Your task to perform on an android device: Search for "rayovac triple a" on ebay.com, select the first entry, and add it to the cart. Image 0: 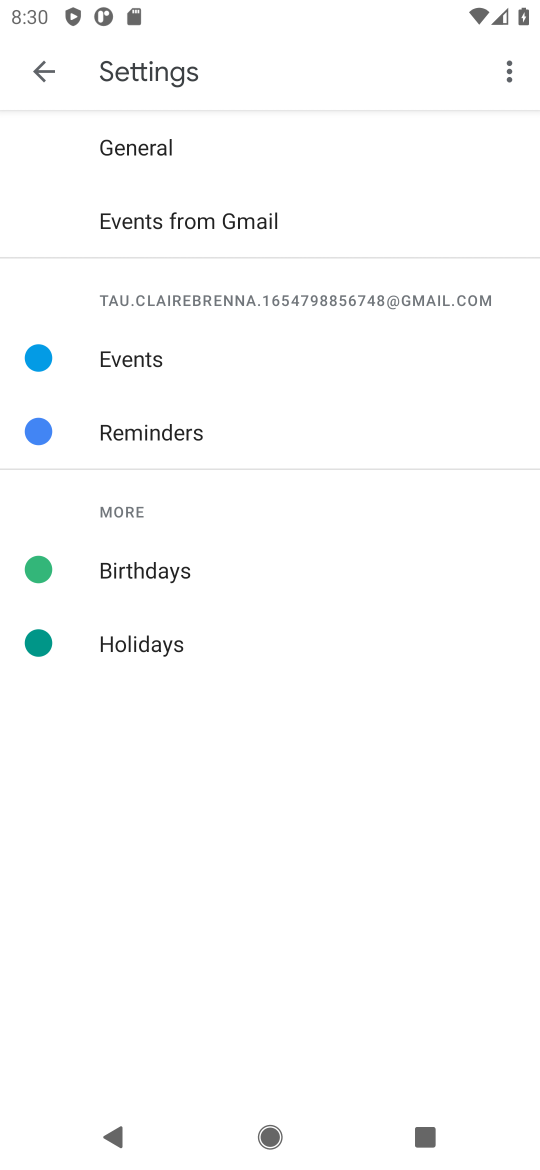
Step 0: press home button
Your task to perform on an android device: Search for "rayovac triple a" on ebay.com, select the first entry, and add it to the cart. Image 1: 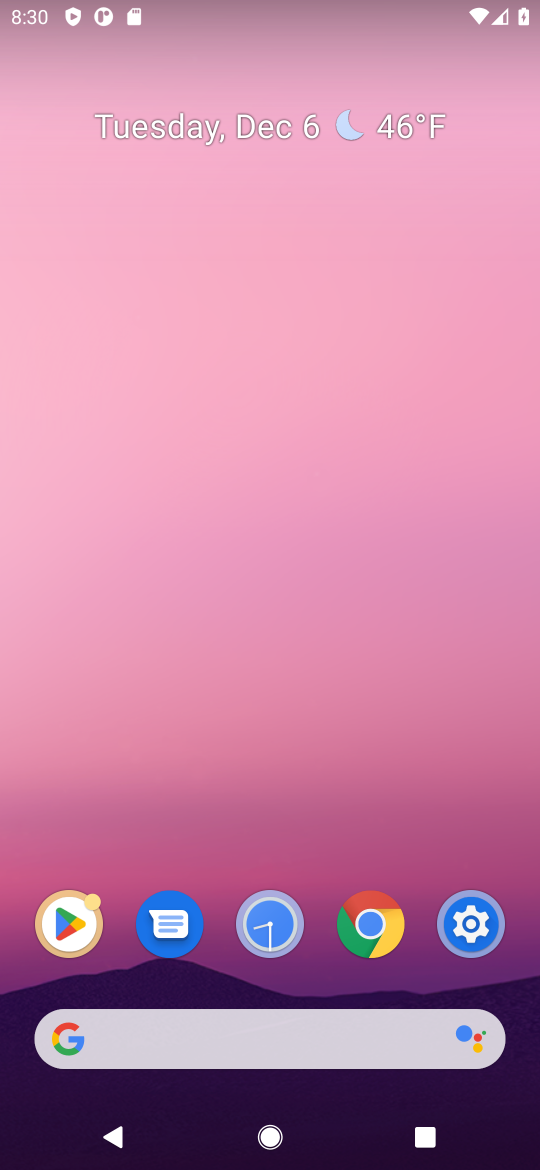
Step 1: click (300, 1030)
Your task to perform on an android device: Search for "rayovac triple a" on ebay.com, select the first entry, and add it to the cart. Image 2: 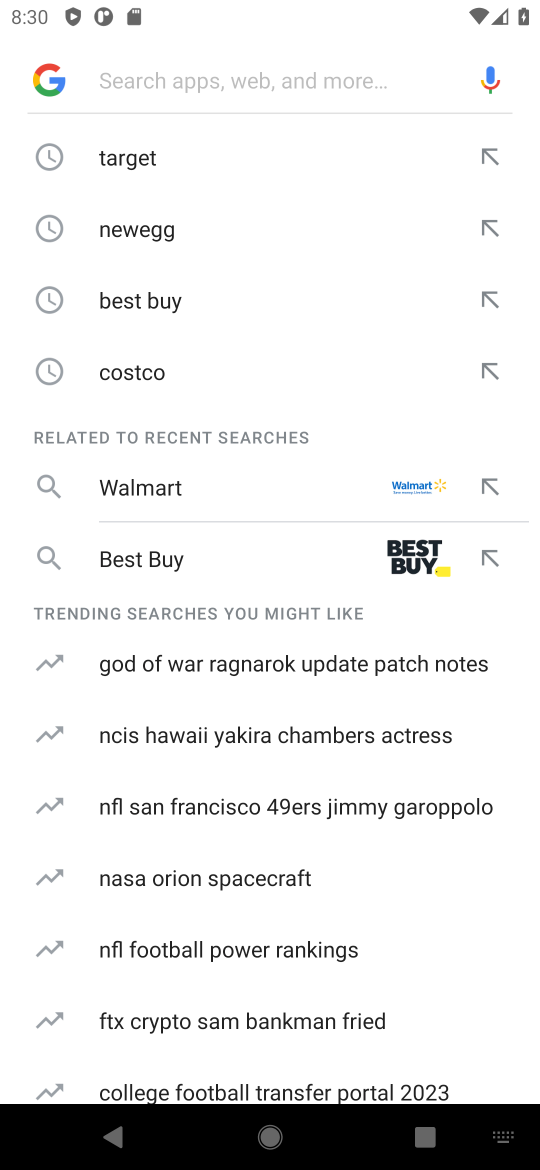
Step 2: type "ebay.com"
Your task to perform on an android device: Search for "rayovac triple a" on ebay.com, select the first entry, and add it to the cart. Image 3: 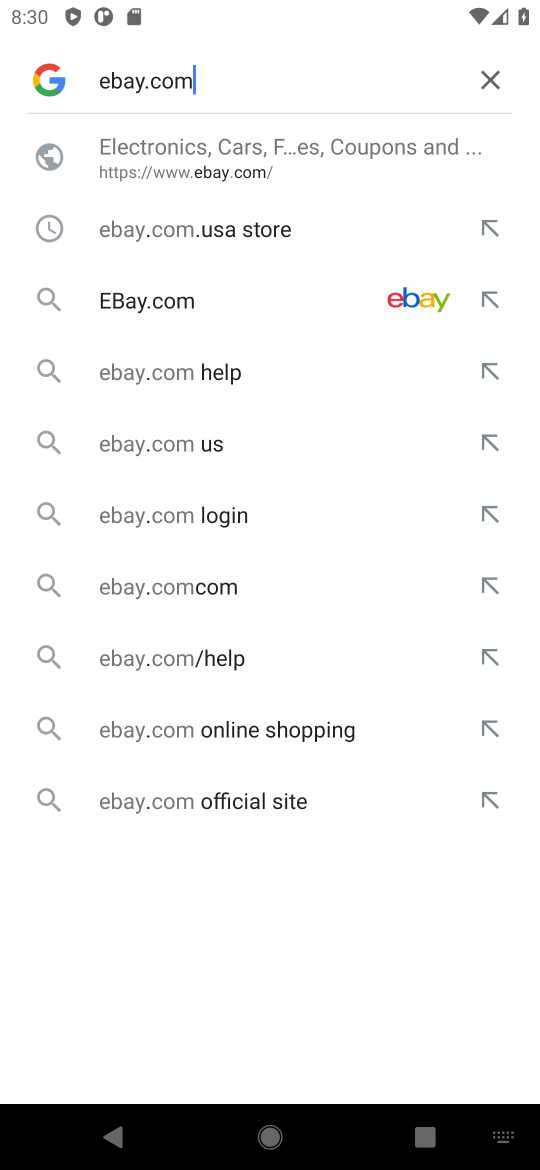
Step 3: click (159, 180)
Your task to perform on an android device: Search for "rayovac triple a" on ebay.com, select the first entry, and add it to the cart. Image 4: 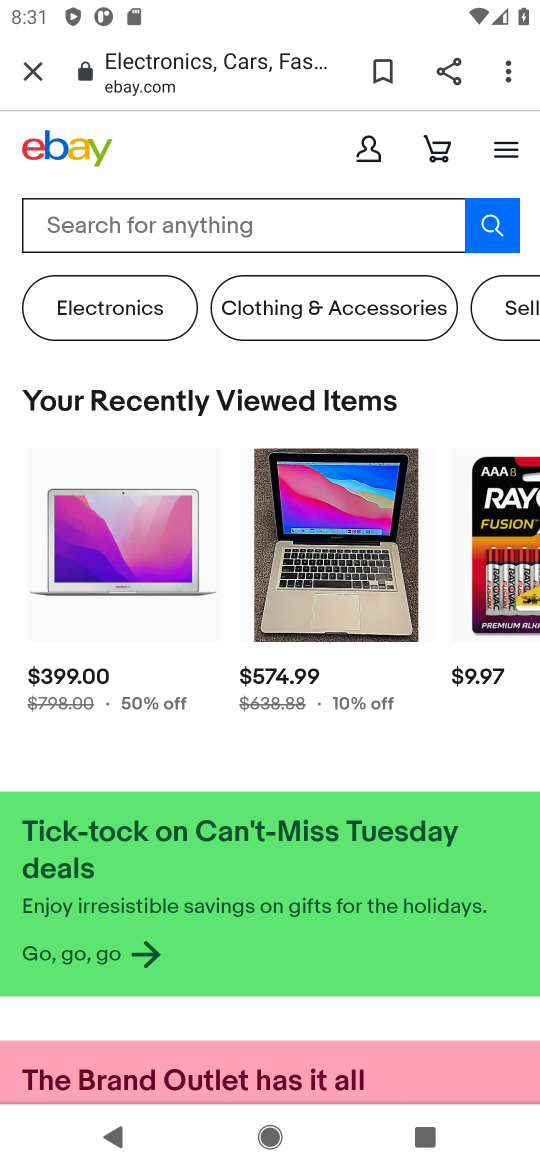
Step 4: click (244, 223)
Your task to perform on an android device: Search for "rayovac triple a" on ebay.com, select the first entry, and add it to the cart. Image 5: 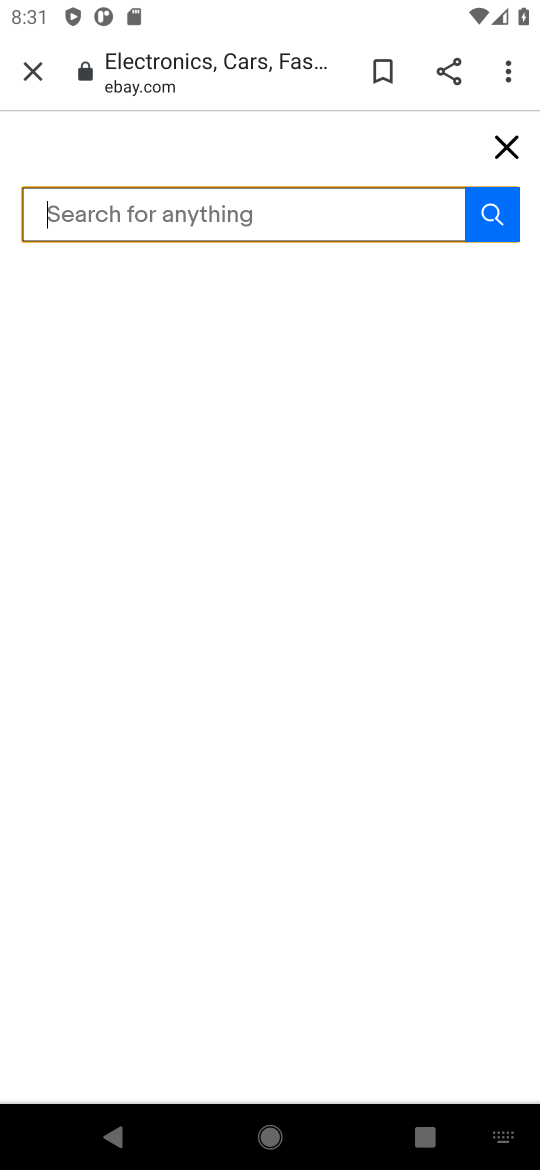
Step 5: type "rayovac triple a"
Your task to perform on an android device: Search for "rayovac triple a" on ebay.com, select the first entry, and add it to the cart. Image 6: 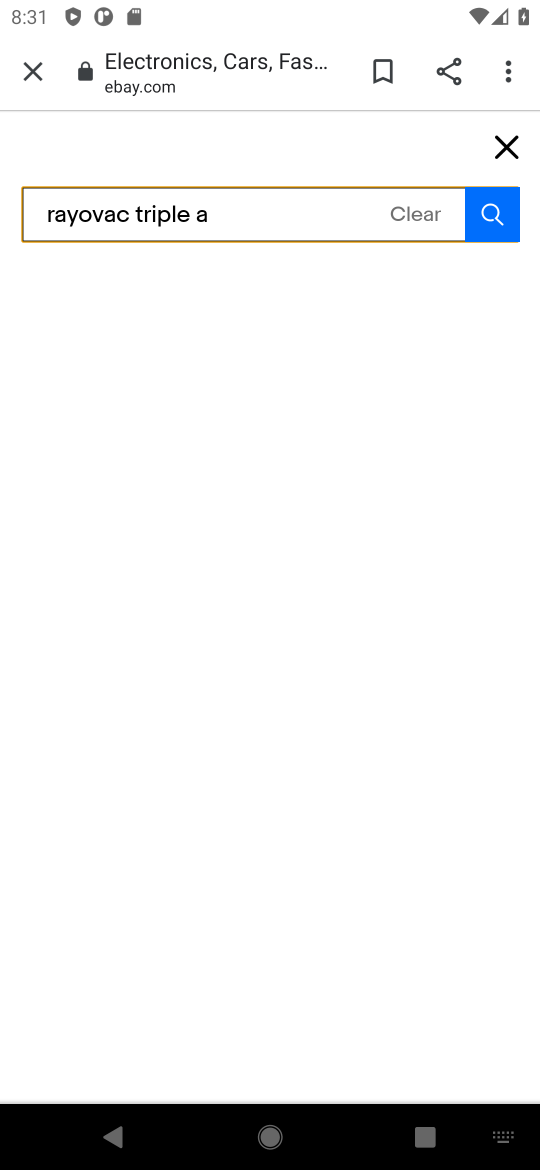
Step 6: click (482, 231)
Your task to perform on an android device: Search for "rayovac triple a" on ebay.com, select the first entry, and add it to the cart. Image 7: 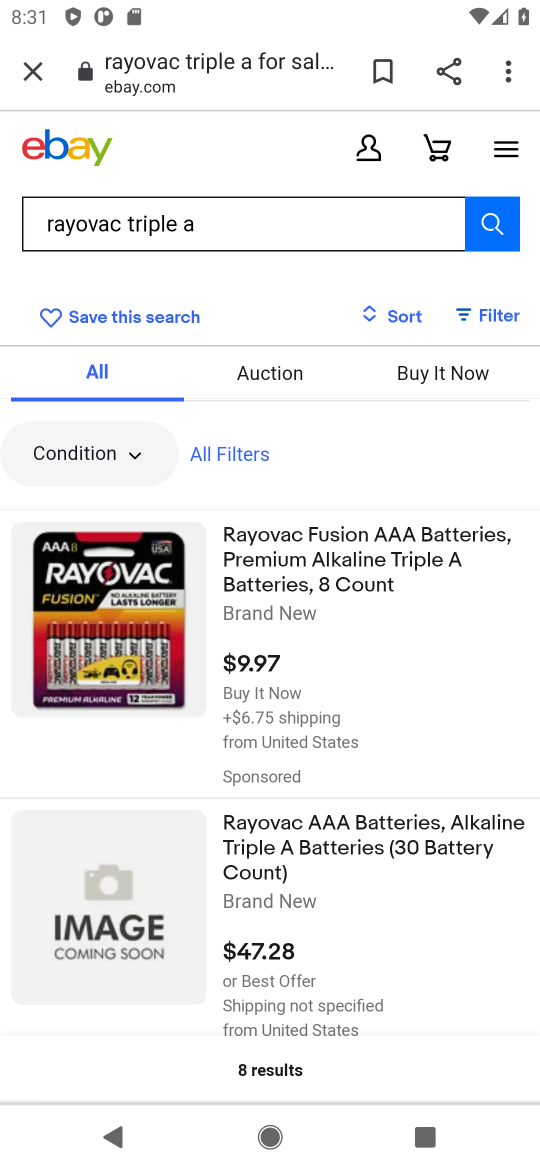
Step 7: click (275, 601)
Your task to perform on an android device: Search for "rayovac triple a" on ebay.com, select the first entry, and add it to the cart. Image 8: 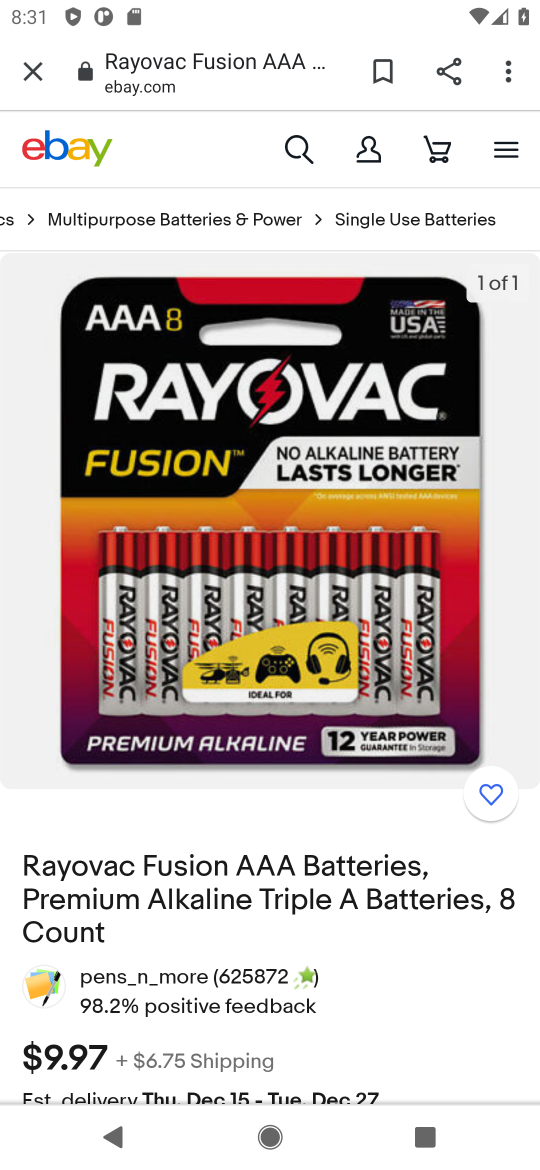
Step 8: drag from (328, 817) to (281, 367)
Your task to perform on an android device: Search for "rayovac triple a" on ebay.com, select the first entry, and add it to the cart. Image 9: 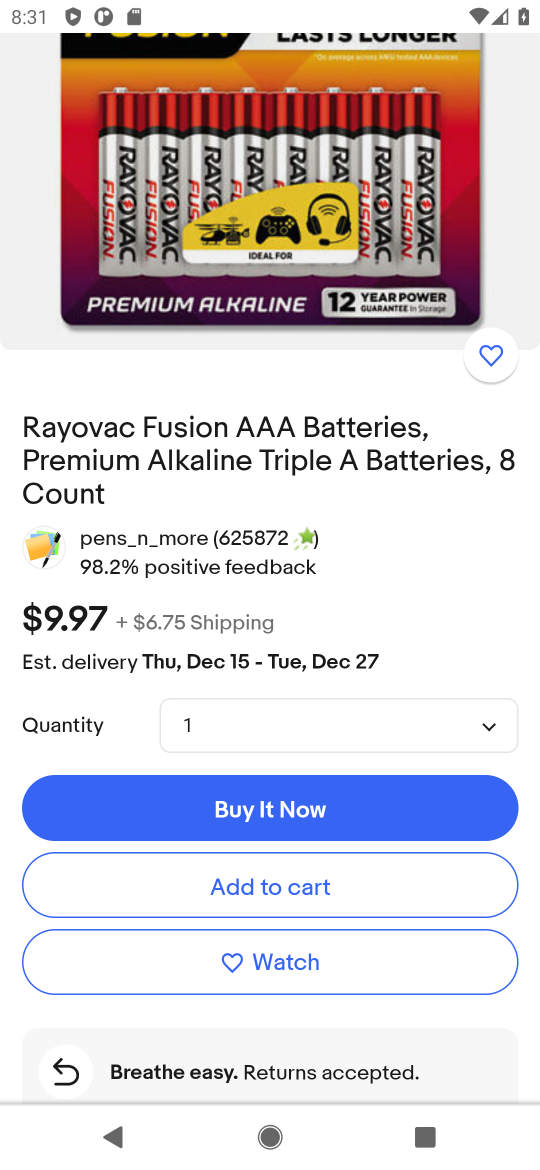
Step 9: click (364, 880)
Your task to perform on an android device: Search for "rayovac triple a" on ebay.com, select the first entry, and add it to the cart. Image 10: 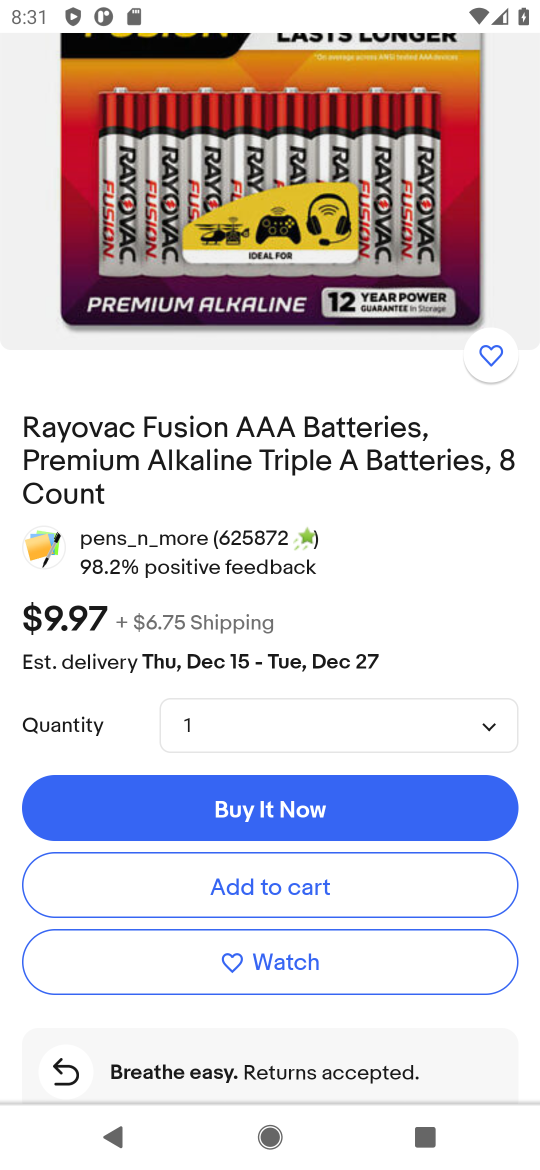
Step 10: task complete